Your task to perform on an android device: Play the last video I watched on Youtube Image 0: 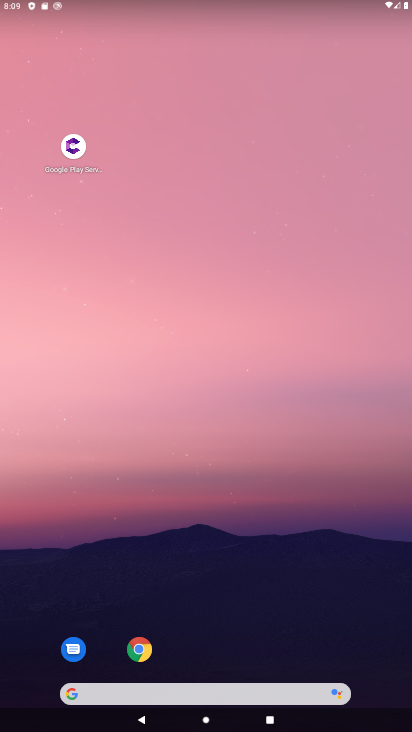
Step 0: drag from (251, 613) to (225, 133)
Your task to perform on an android device: Play the last video I watched on Youtube Image 1: 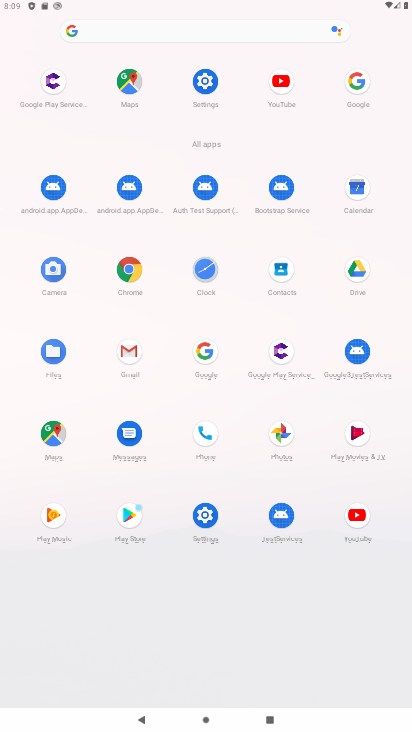
Step 1: click (359, 513)
Your task to perform on an android device: Play the last video I watched on Youtube Image 2: 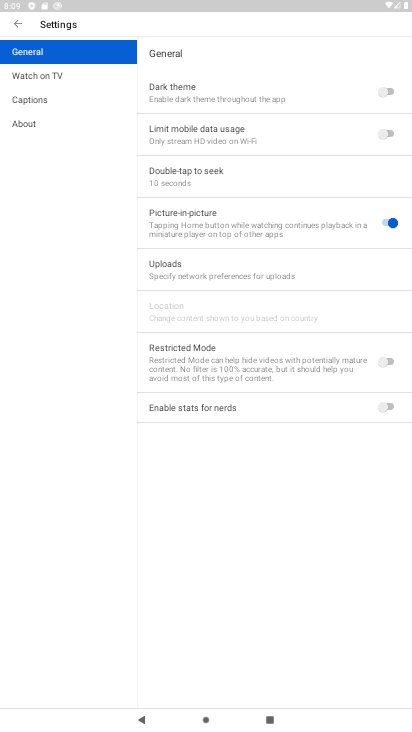
Step 2: click (17, 24)
Your task to perform on an android device: Play the last video I watched on Youtube Image 3: 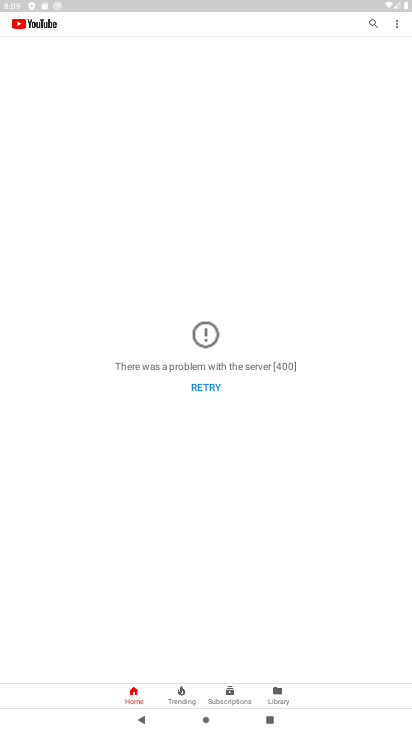
Step 3: click (275, 692)
Your task to perform on an android device: Play the last video I watched on Youtube Image 4: 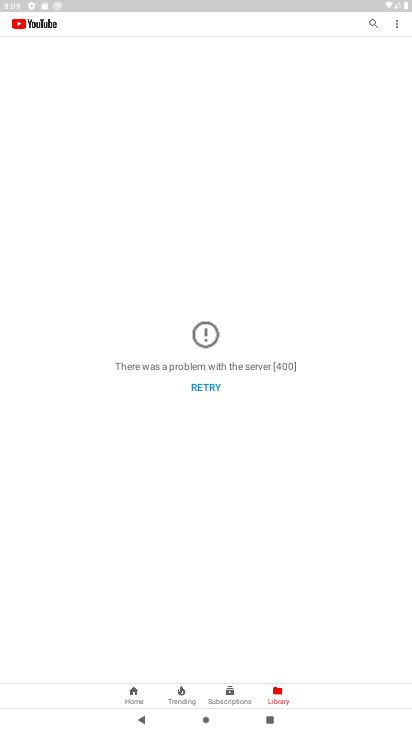
Step 4: click (275, 692)
Your task to perform on an android device: Play the last video I watched on Youtube Image 5: 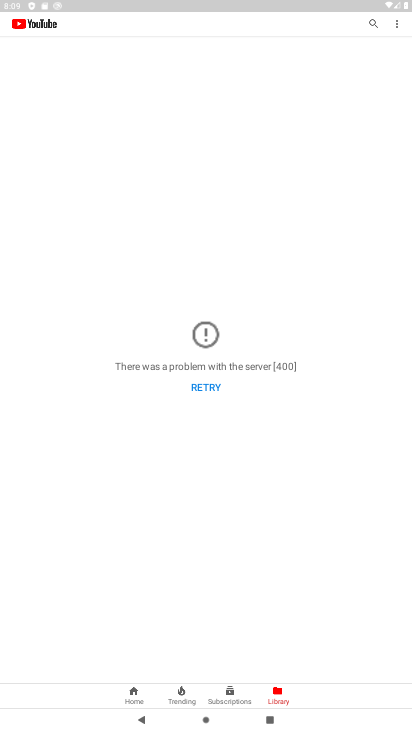
Step 5: task complete